Your task to perform on an android device: show emergency info Image 0: 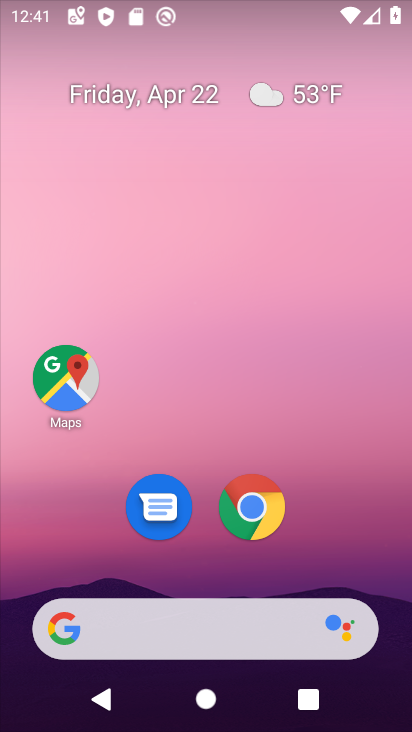
Step 0: drag from (281, 413) to (254, 116)
Your task to perform on an android device: show emergency info Image 1: 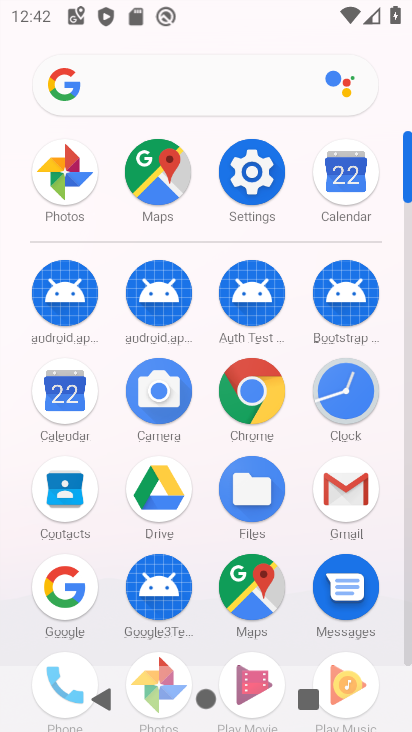
Step 1: click (257, 156)
Your task to perform on an android device: show emergency info Image 2: 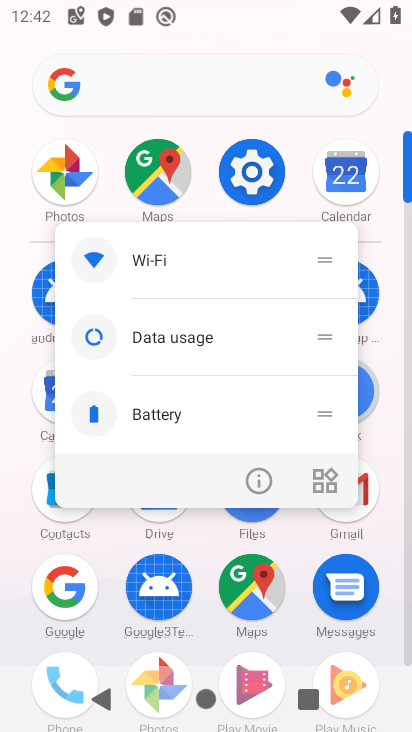
Step 2: click (249, 172)
Your task to perform on an android device: show emergency info Image 3: 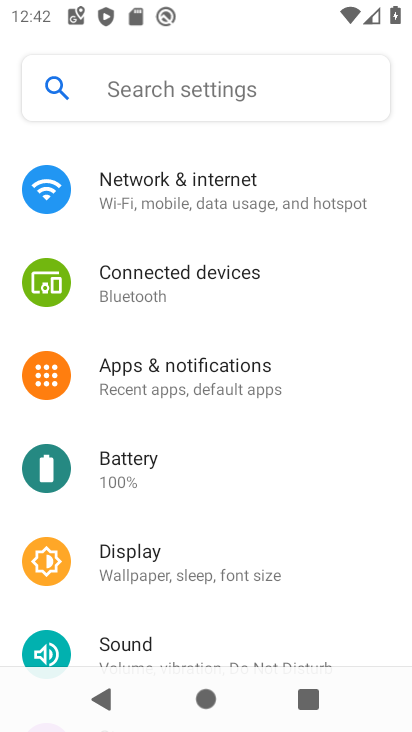
Step 3: drag from (168, 609) to (160, 224)
Your task to perform on an android device: show emergency info Image 4: 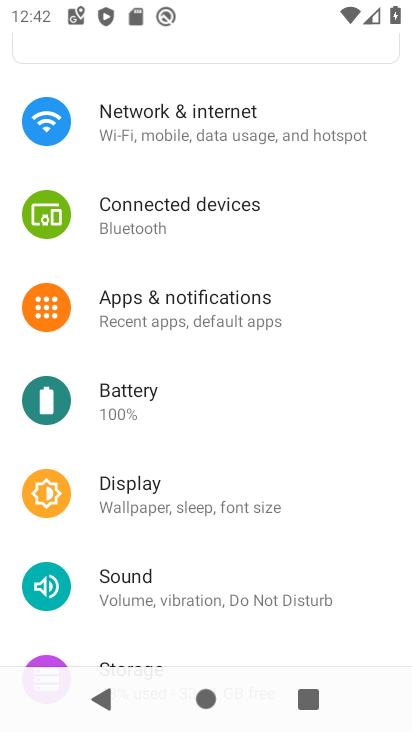
Step 4: drag from (281, 583) to (284, 113)
Your task to perform on an android device: show emergency info Image 5: 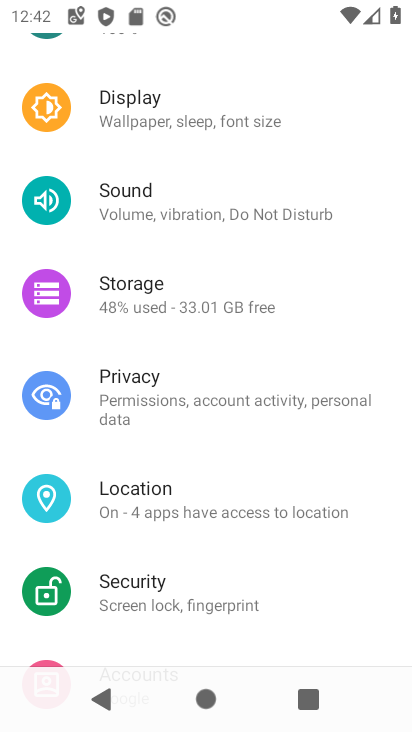
Step 5: drag from (303, 606) to (297, 97)
Your task to perform on an android device: show emergency info Image 6: 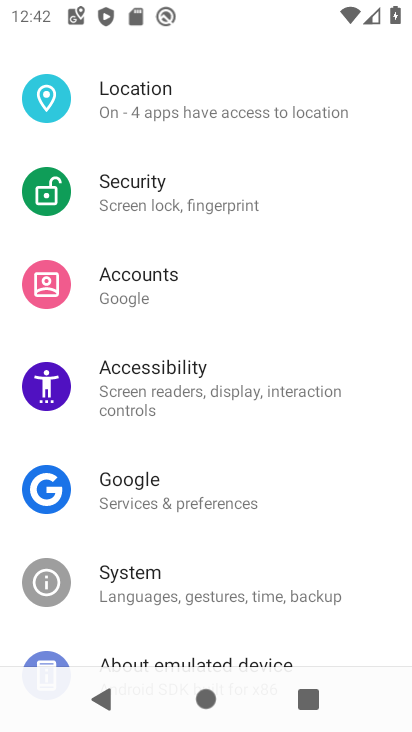
Step 6: drag from (212, 646) to (231, 213)
Your task to perform on an android device: show emergency info Image 7: 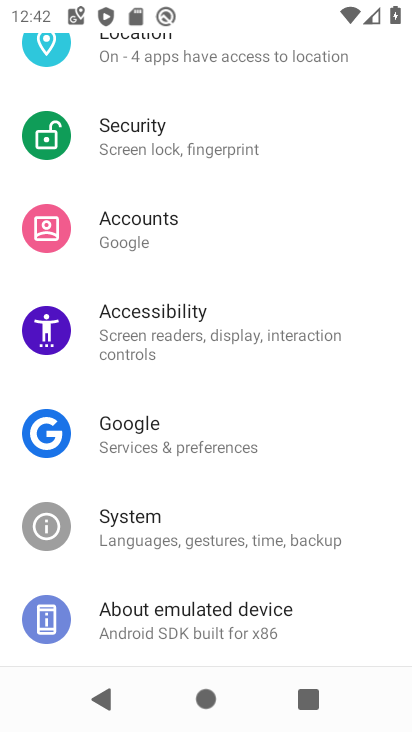
Step 7: click (177, 613)
Your task to perform on an android device: show emergency info Image 8: 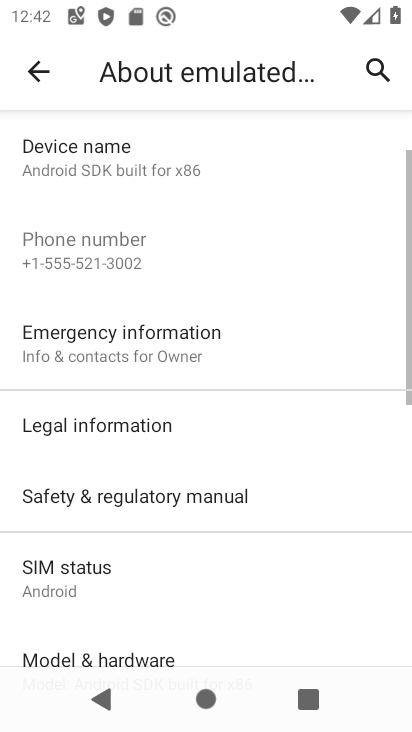
Step 8: click (134, 340)
Your task to perform on an android device: show emergency info Image 9: 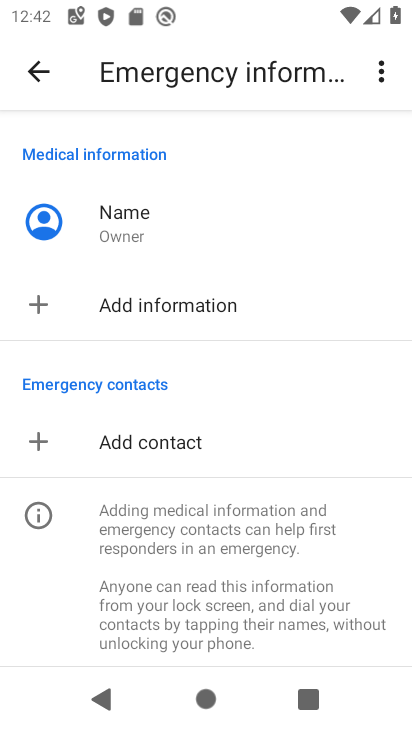
Step 9: task complete